Your task to perform on an android device: choose inbox layout in the gmail app Image 0: 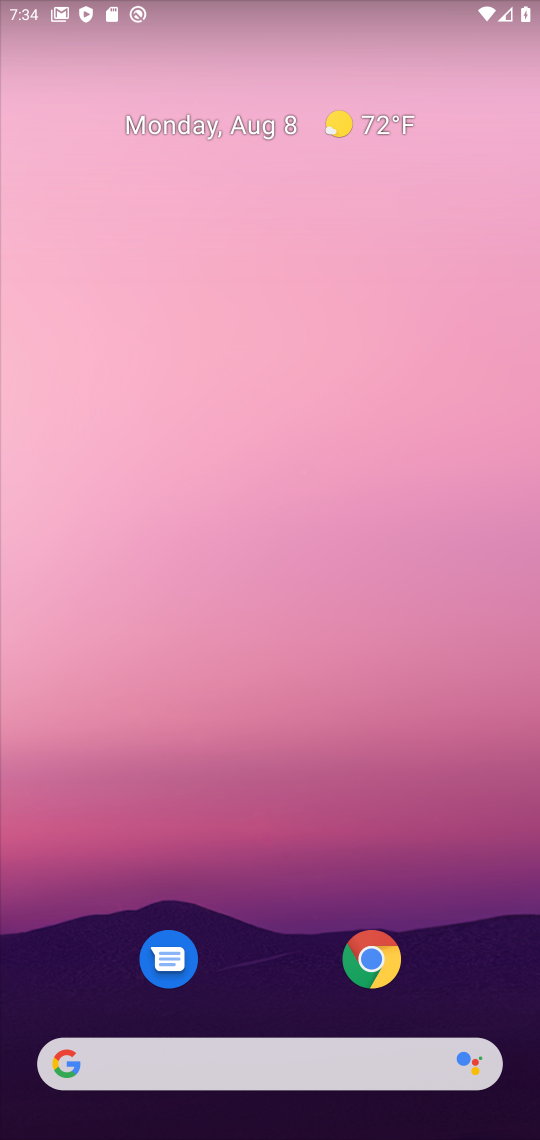
Step 0: drag from (465, 968) to (275, 32)
Your task to perform on an android device: choose inbox layout in the gmail app Image 1: 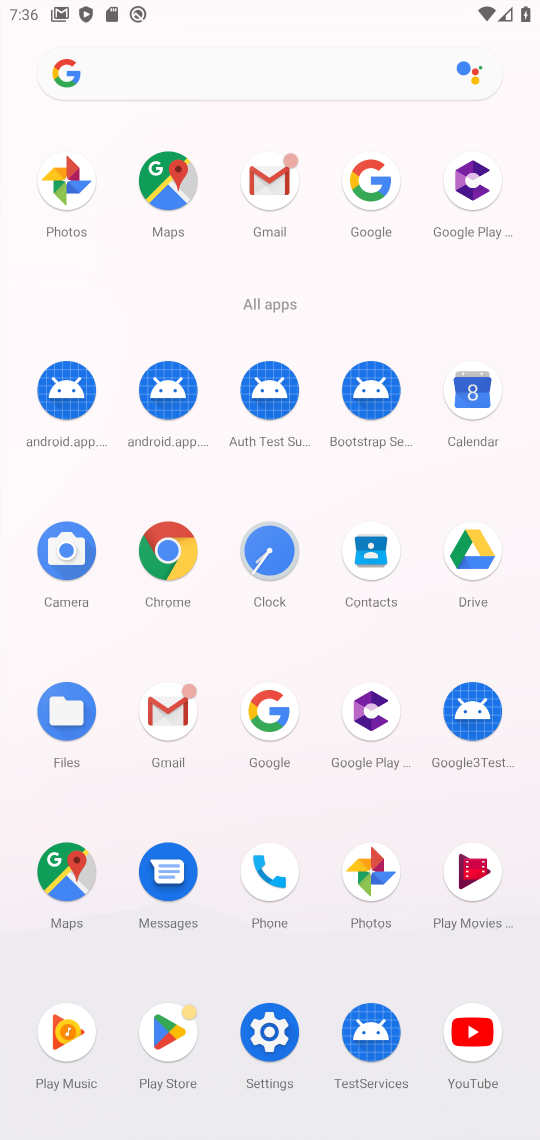
Step 1: click (206, 713)
Your task to perform on an android device: choose inbox layout in the gmail app Image 2: 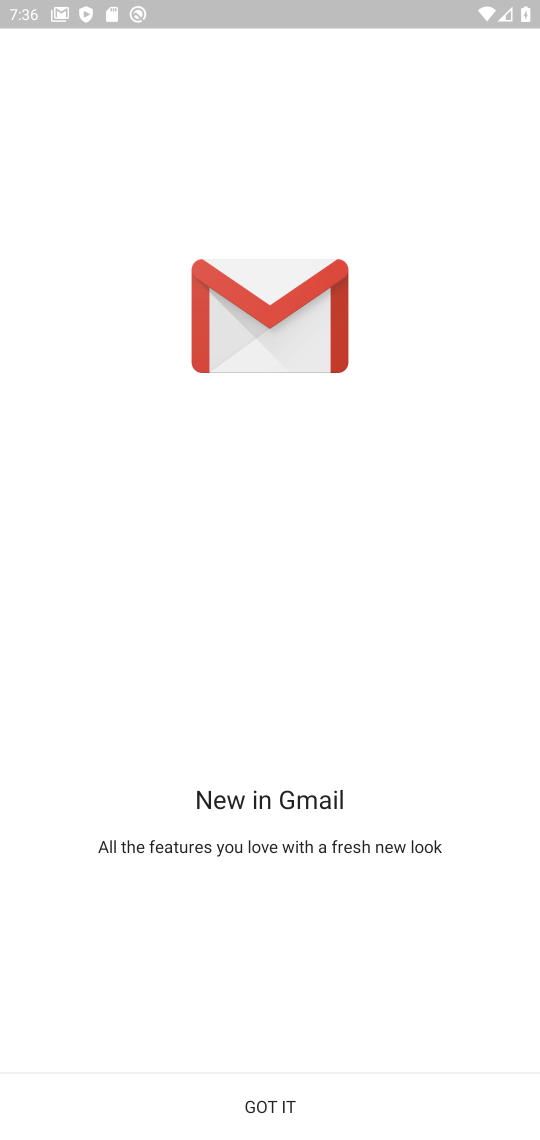
Step 2: click (227, 1119)
Your task to perform on an android device: choose inbox layout in the gmail app Image 3: 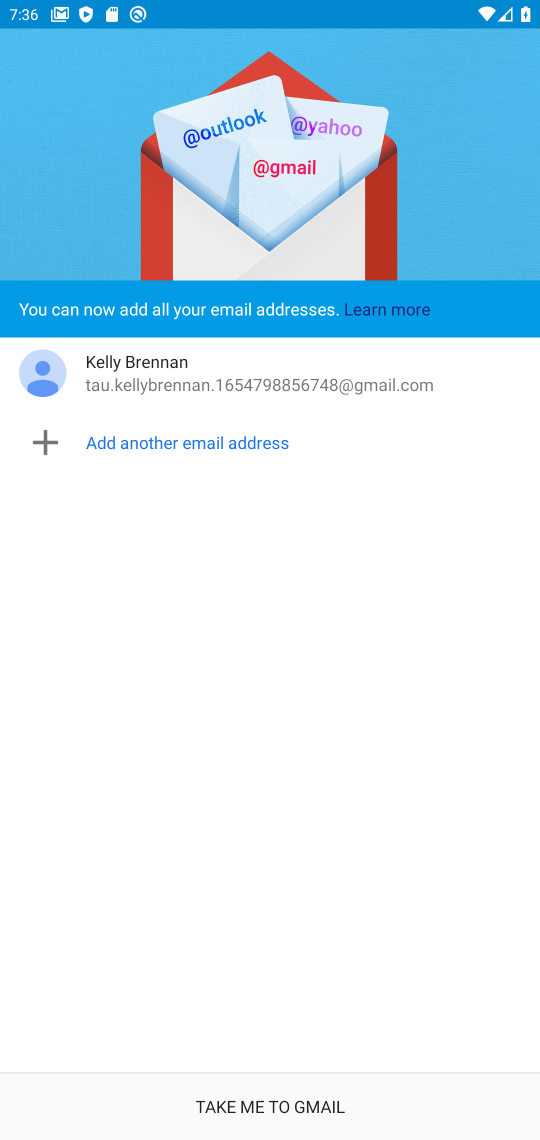
Step 3: click (229, 1112)
Your task to perform on an android device: choose inbox layout in the gmail app Image 4: 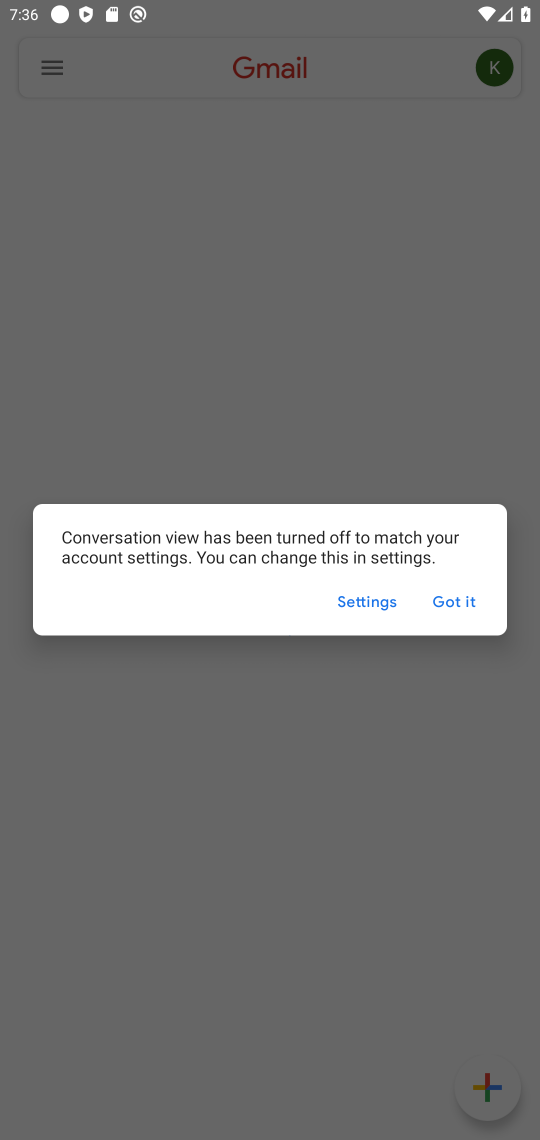
Step 4: task complete